Your task to perform on an android device: Open the stopwatch Image 0: 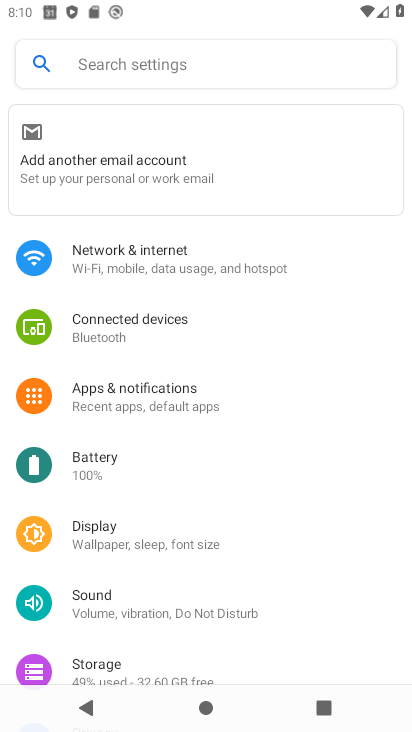
Step 0: press home button
Your task to perform on an android device: Open the stopwatch Image 1: 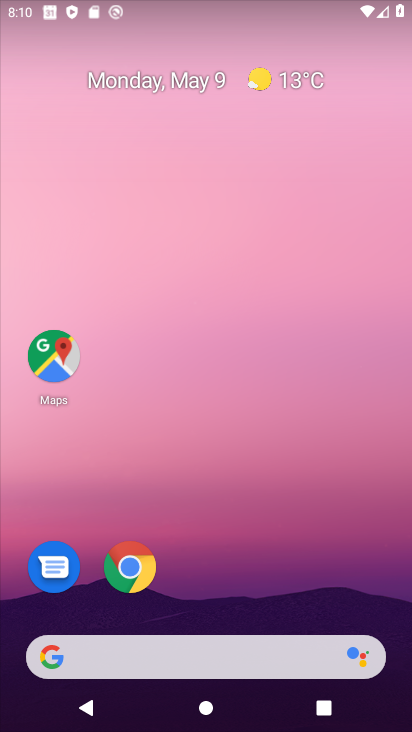
Step 1: drag from (240, 533) to (245, 15)
Your task to perform on an android device: Open the stopwatch Image 2: 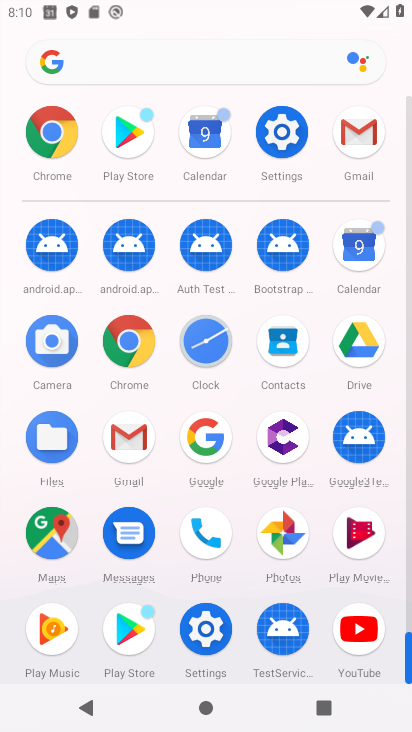
Step 2: click (206, 339)
Your task to perform on an android device: Open the stopwatch Image 3: 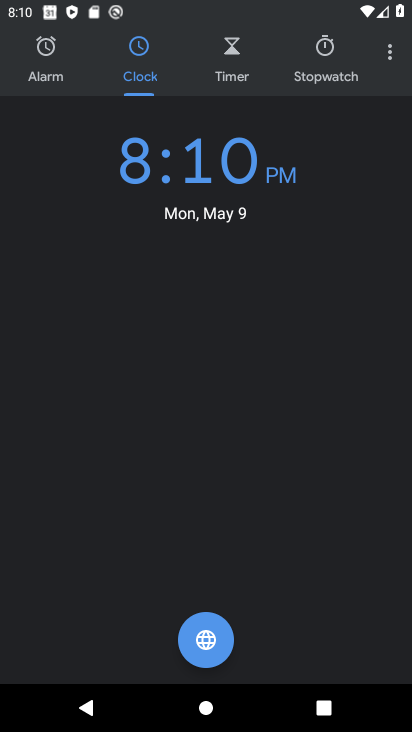
Step 3: click (328, 61)
Your task to perform on an android device: Open the stopwatch Image 4: 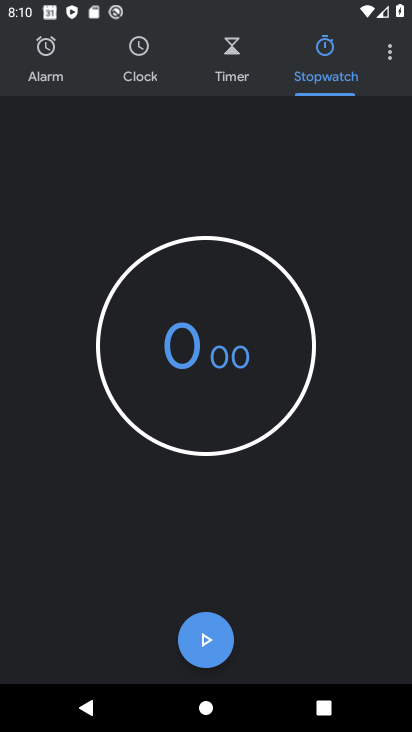
Step 4: task complete